Your task to perform on an android device: delete a single message in the gmail app Image 0: 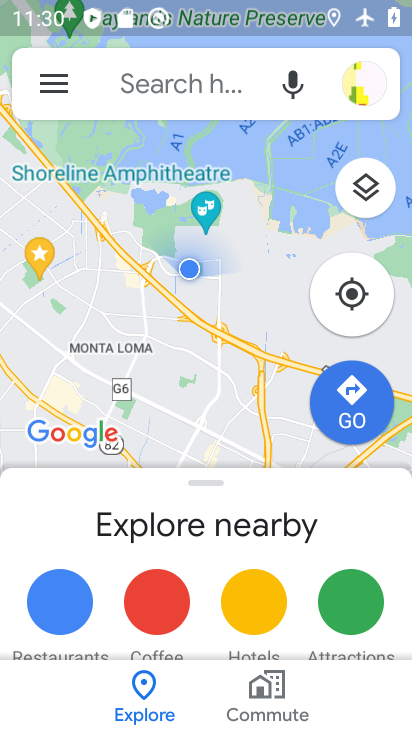
Step 0: press home button
Your task to perform on an android device: delete a single message in the gmail app Image 1: 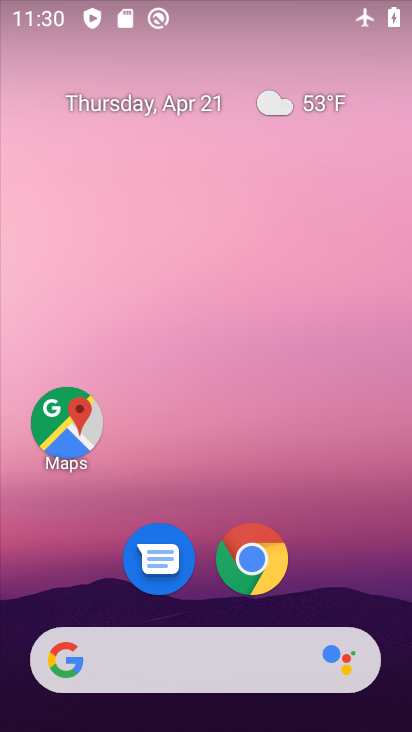
Step 1: drag from (388, 519) to (325, 12)
Your task to perform on an android device: delete a single message in the gmail app Image 2: 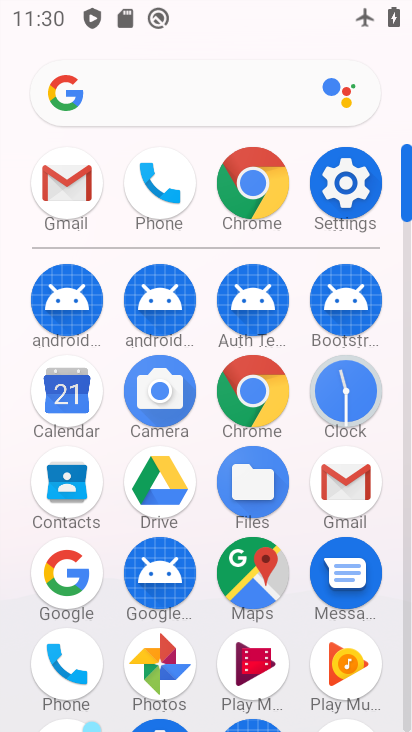
Step 2: click (58, 195)
Your task to perform on an android device: delete a single message in the gmail app Image 3: 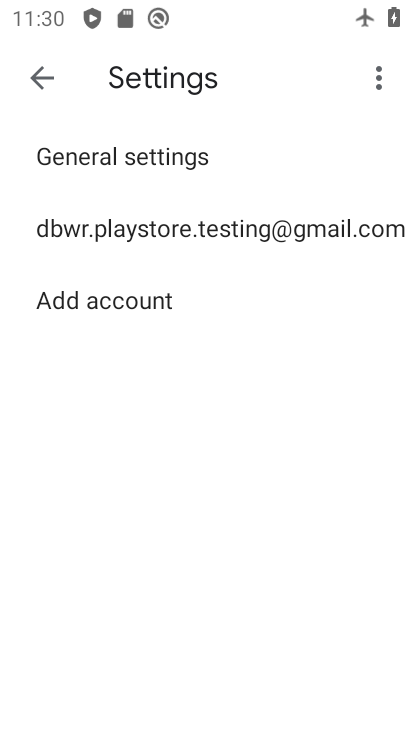
Step 3: click (41, 94)
Your task to perform on an android device: delete a single message in the gmail app Image 4: 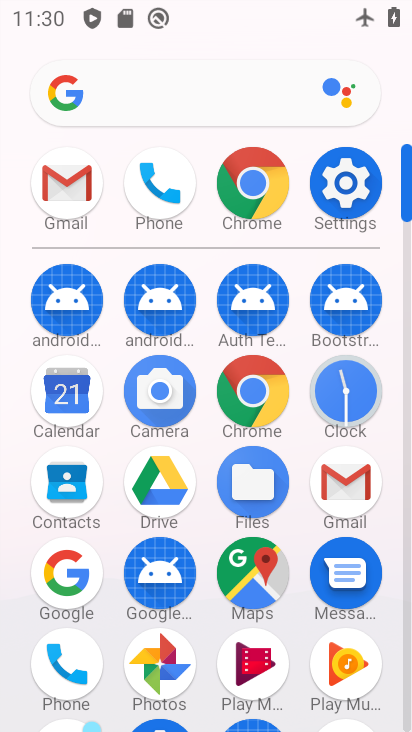
Step 4: click (70, 192)
Your task to perform on an android device: delete a single message in the gmail app Image 5: 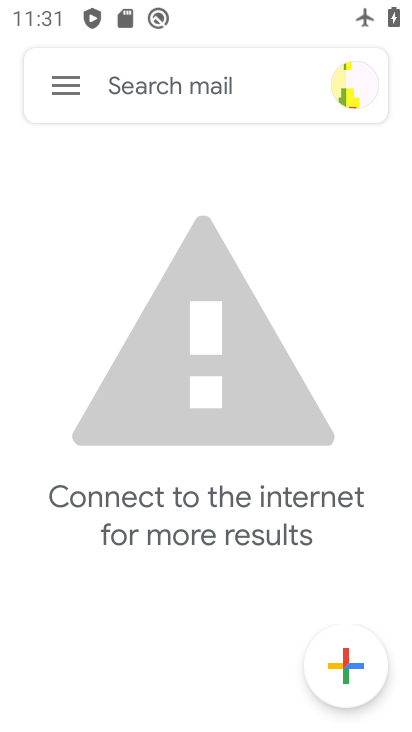
Step 5: task complete